Your task to perform on an android device: Do I have any events today? Image 0: 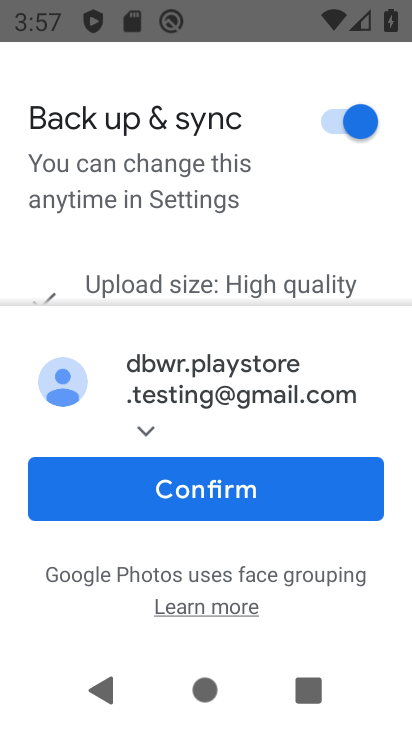
Step 0: press home button
Your task to perform on an android device: Do I have any events today? Image 1: 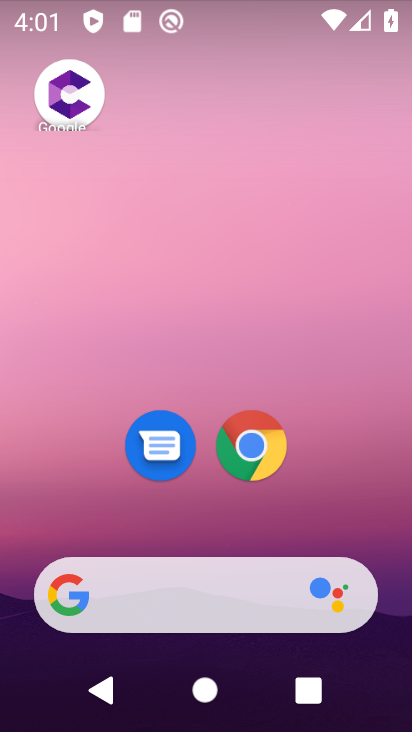
Step 1: drag from (345, 526) to (212, 0)
Your task to perform on an android device: Do I have any events today? Image 2: 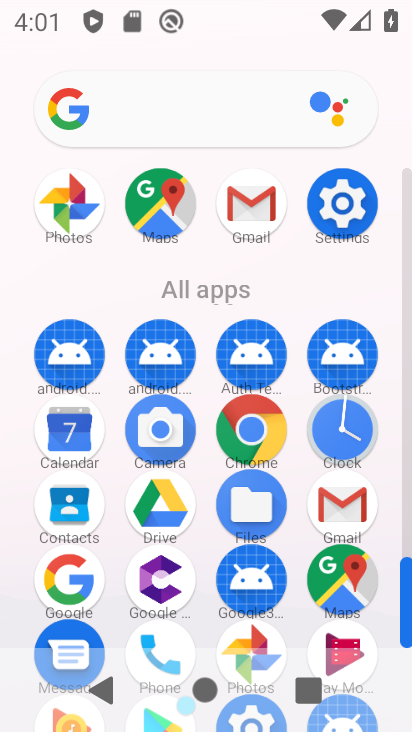
Step 2: click (72, 436)
Your task to perform on an android device: Do I have any events today? Image 3: 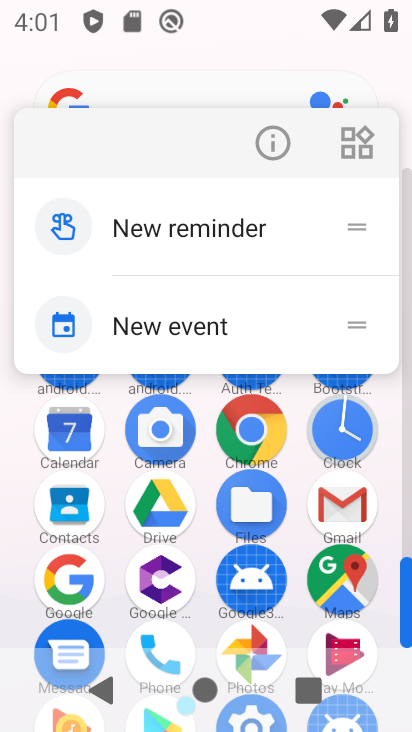
Step 3: click (73, 428)
Your task to perform on an android device: Do I have any events today? Image 4: 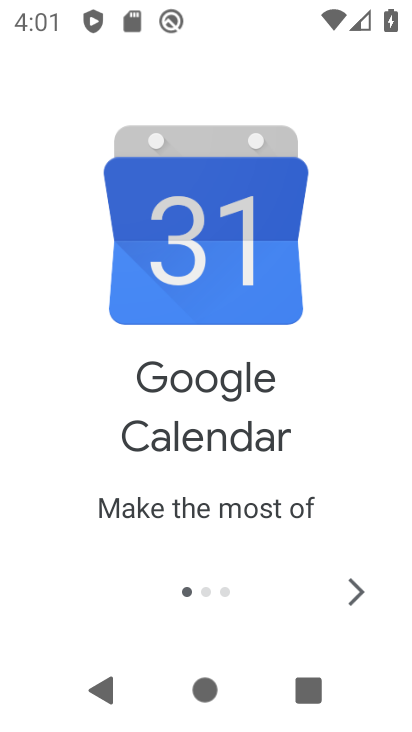
Step 4: click (362, 602)
Your task to perform on an android device: Do I have any events today? Image 5: 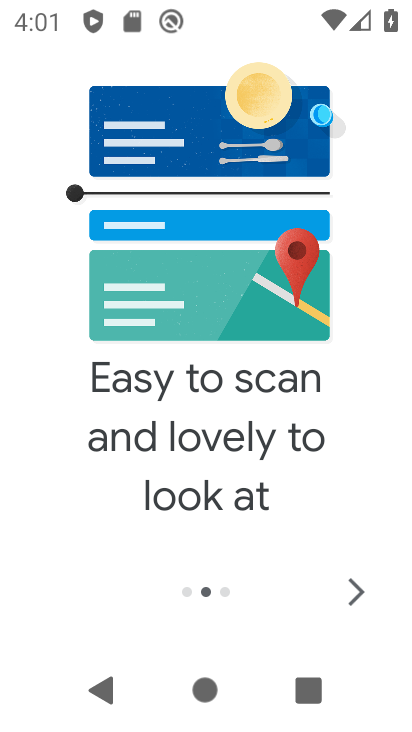
Step 5: click (362, 602)
Your task to perform on an android device: Do I have any events today? Image 6: 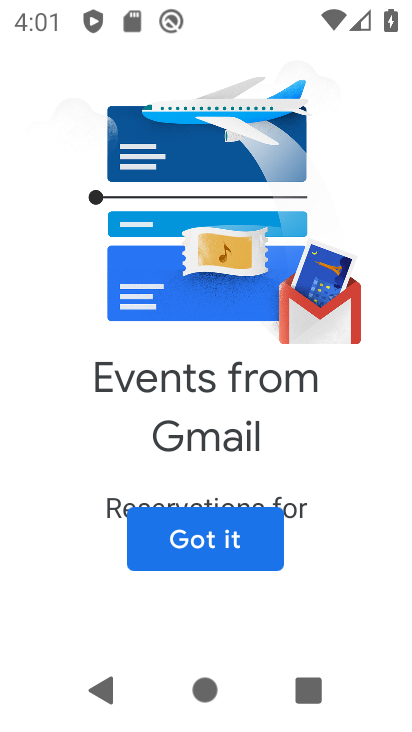
Step 6: click (188, 550)
Your task to perform on an android device: Do I have any events today? Image 7: 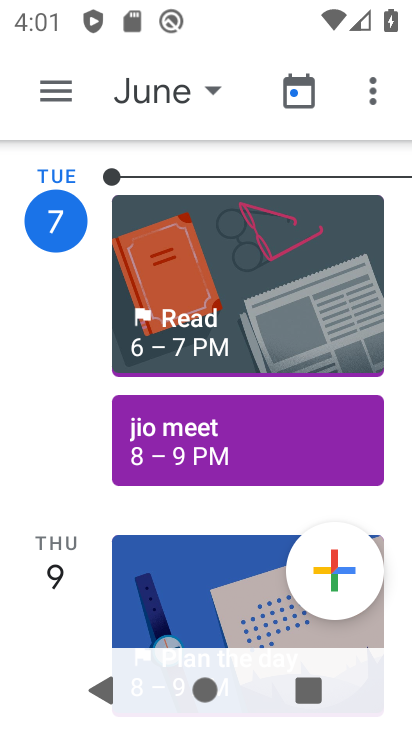
Step 7: click (132, 102)
Your task to perform on an android device: Do I have any events today? Image 8: 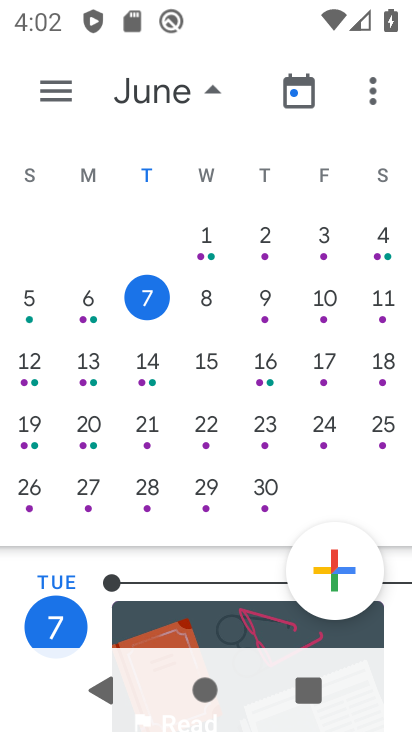
Step 8: task complete